Your task to perform on an android device: Open Chrome and go to the settings page Image 0: 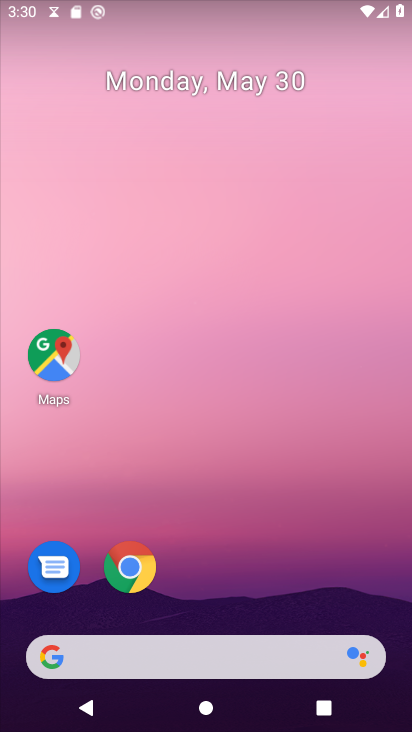
Step 0: click (170, 3)
Your task to perform on an android device: Open Chrome and go to the settings page Image 1: 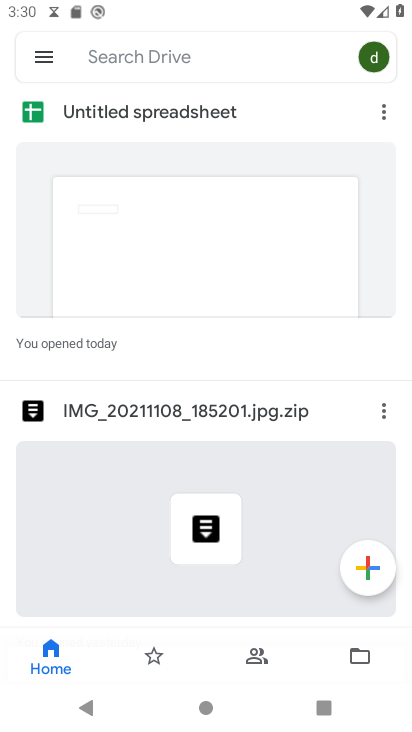
Step 1: press back button
Your task to perform on an android device: Open Chrome and go to the settings page Image 2: 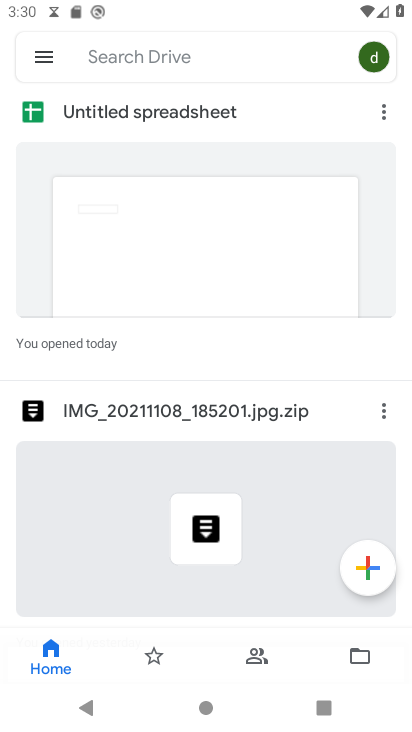
Step 2: press back button
Your task to perform on an android device: Open Chrome and go to the settings page Image 3: 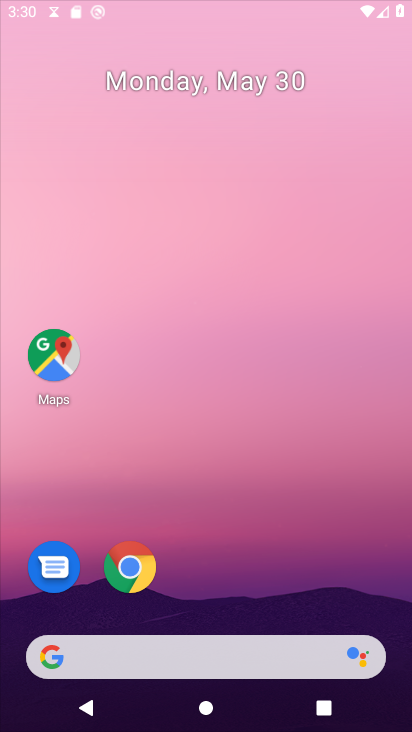
Step 3: press back button
Your task to perform on an android device: Open Chrome and go to the settings page Image 4: 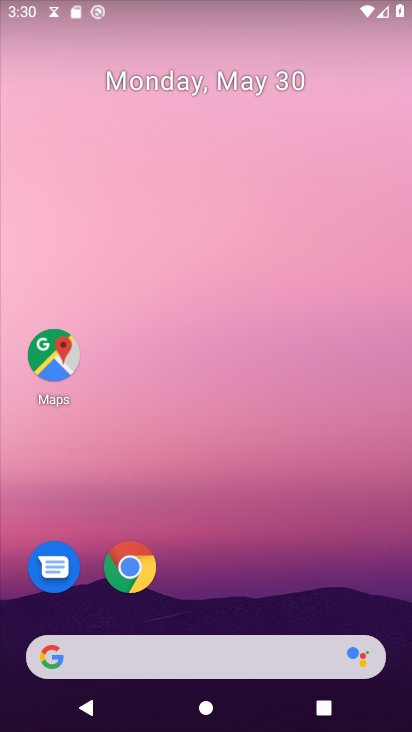
Step 4: drag from (251, 677) to (239, 23)
Your task to perform on an android device: Open Chrome and go to the settings page Image 5: 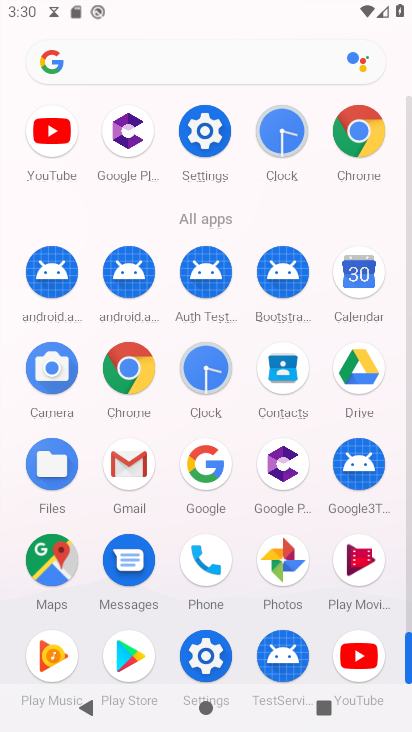
Step 5: click (352, 123)
Your task to perform on an android device: Open Chrome and go to the settings page Image 6: 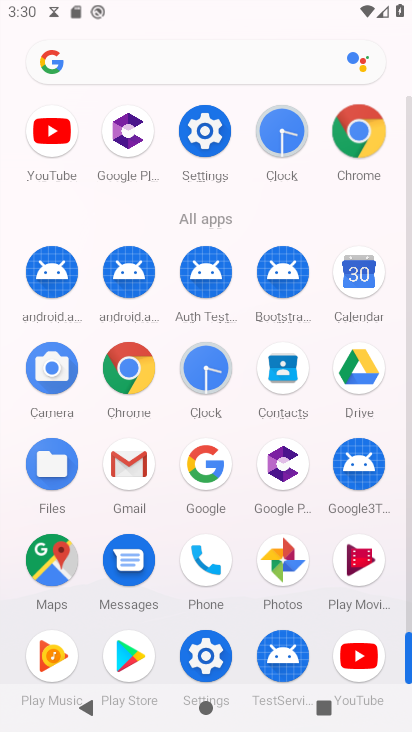
Step 6: click (352, 124)
Your task to perform on an android device: Open Chrome and go to the settings page Image 7: 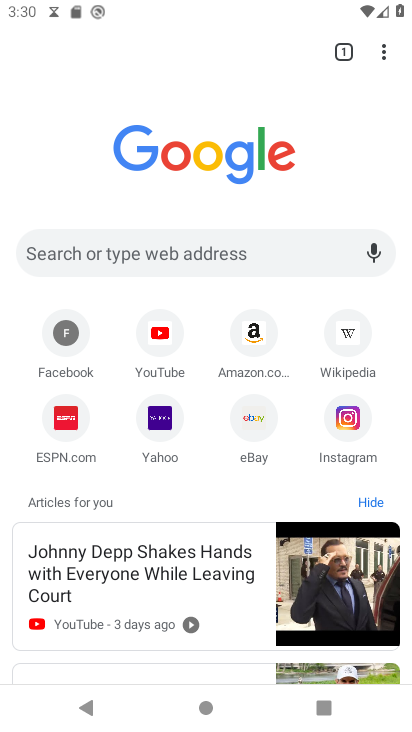
Step 7: click (380, 54)
Your task to perform on an android device: Open Chrome and go to the settings page Image 8: 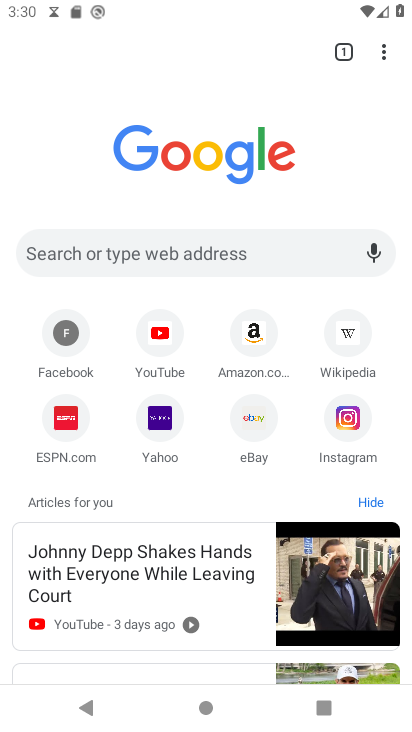
Step 8: click (380, 54)
Your task to perform on an android device: Open Chrome and go to the settings page Image 9: 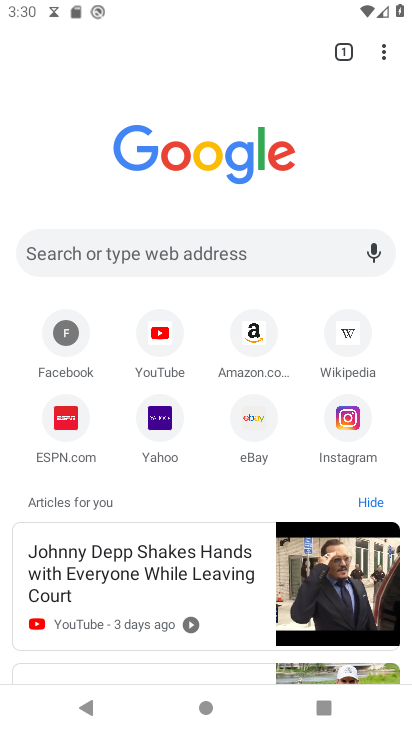
Step 9: click (380, 54)
Your task to perform on an android device: Open Chrome and go to the settings page Image 10: 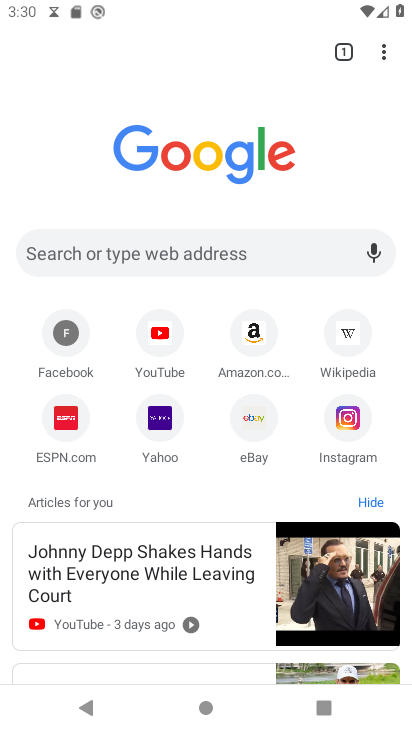
Step 10: click (383, 56)
Your task to perform on an android device: Open Chrome and go to the settings page Image 11: 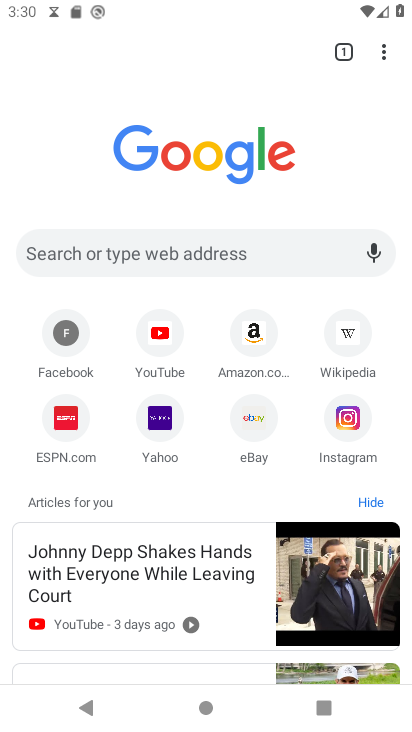
Step 11: drag from (383, 54) to (202, 454)
Your task to perform on an android device: Open Chrome and go to the settings page Image 12: 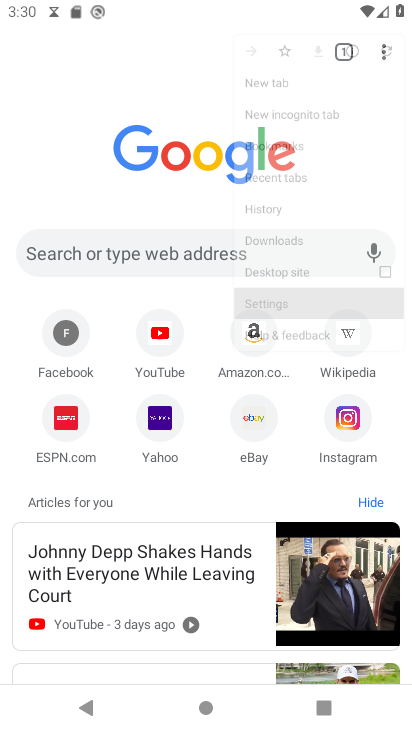
Step 12: click (202, 454)
Your task to perform on an android device: Open Chrome and go to the settings page Image 13: 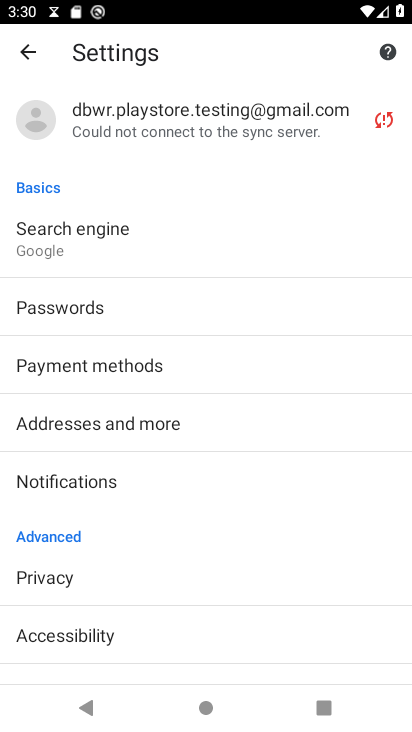
Step 13: task complete